Your task to perform on an android device: set the stopwatch Image 0: 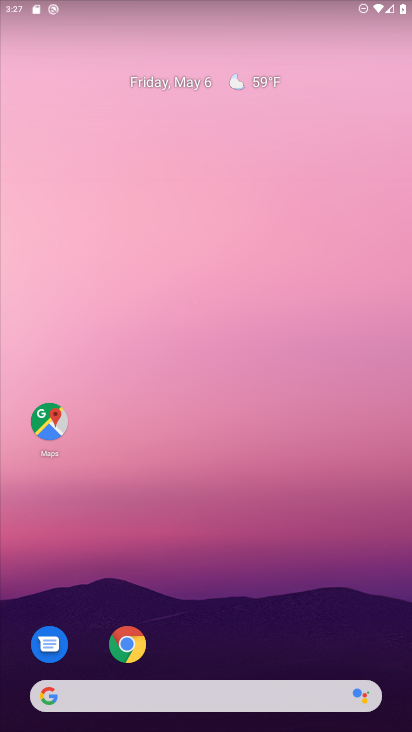
Step 0: drag from (226, 729) to (231, 206)
Your task to perform on an android device: set the stopwatch Image 1: 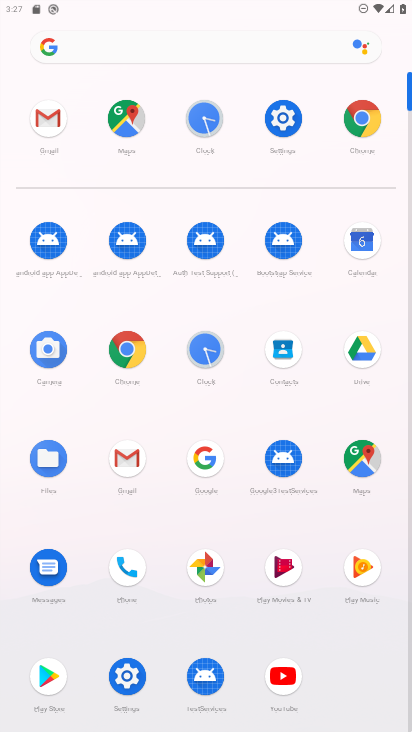
Step 1: click (202, 347)
Your task to perform on an android device: set the stopwatch Image 2: 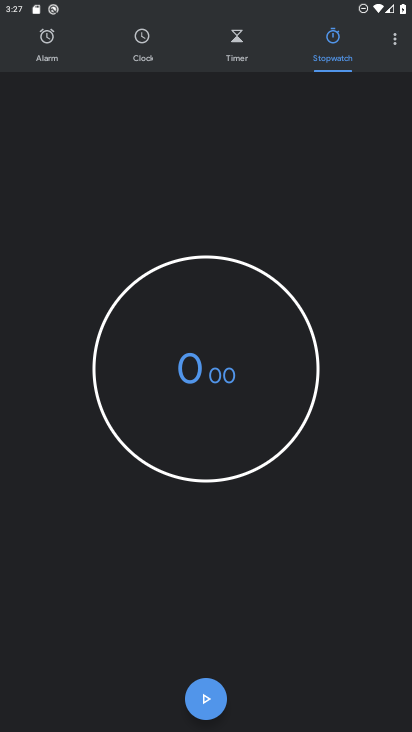
Step 2: click (236, 332)
Your task to perform on an android device: set the stopwatch Image 3: 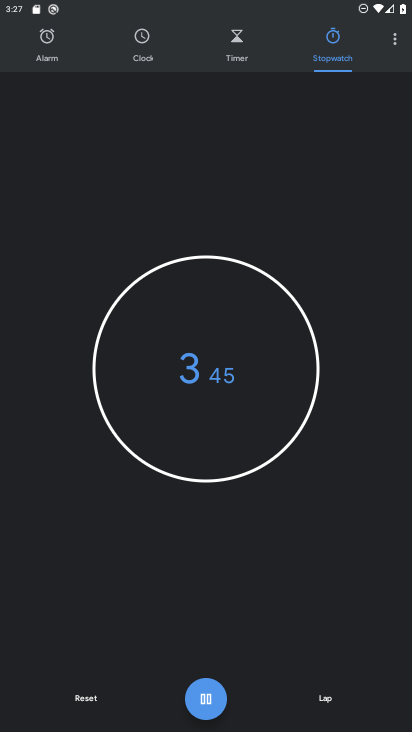
Step 3: type "i877"
Your task to perform on an android device: set the stopwatch Image 4: 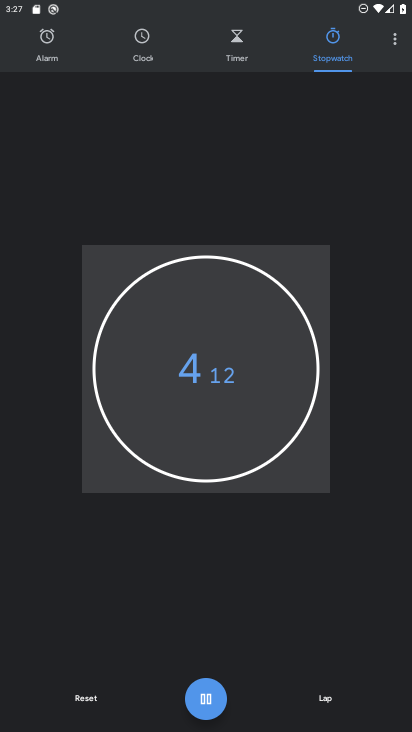
Step 4: type ""
Your task to perform on an android device: set the stopwatch Image 5: 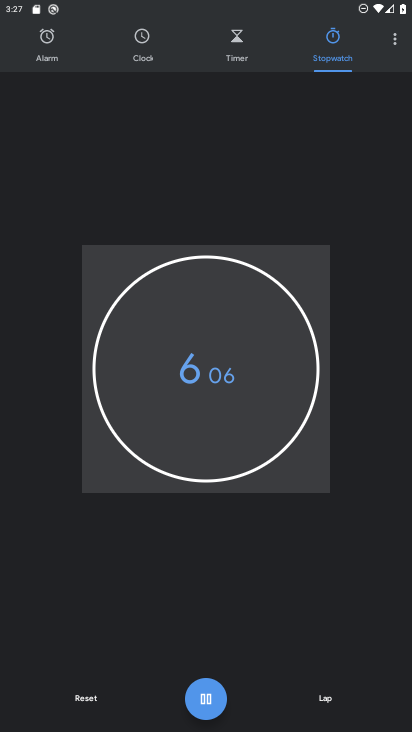
Step 5: task complete